Your task to perform on an android device: turn on showing notifications on the lock screen Image 0: 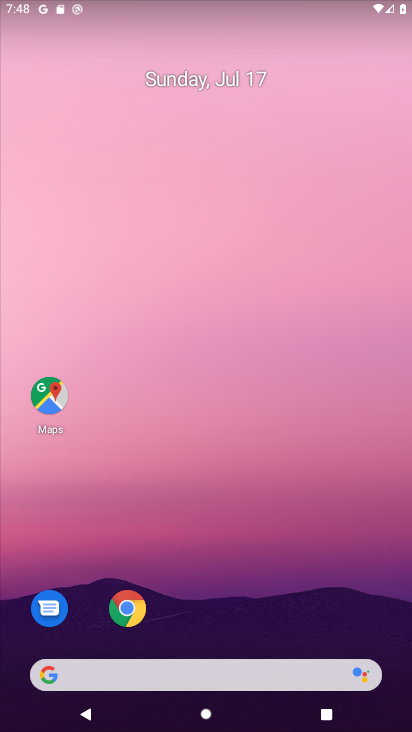
Step 0: drag from (183, 674) to (128, 237)
Your task to perform on an android device: turn on showing notifications on the lock screen Image 1: 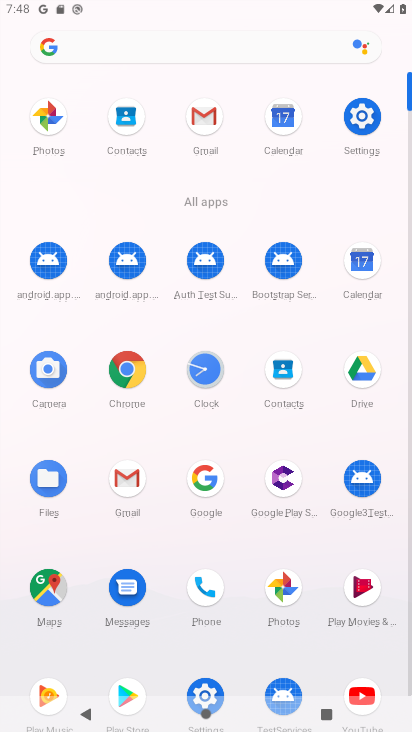
Step 1: click (358, 116)
Your task to perform on an android device: turn on showing notifications on the lock screen Image 2: 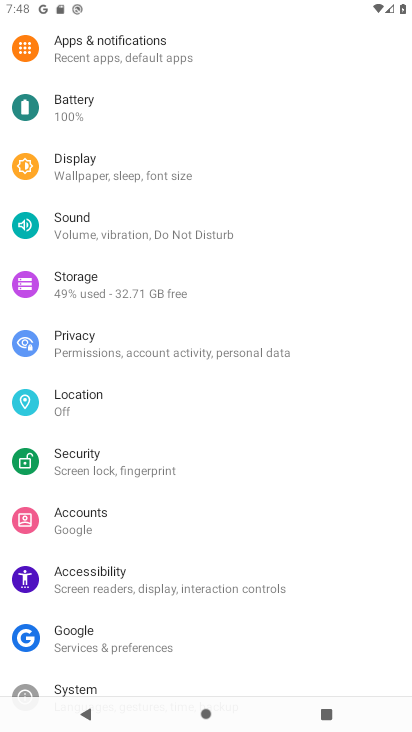
Step 2: click (91, 353)
Your task to perform on an android device: turn on showing notifications on the lock screen Image 3: 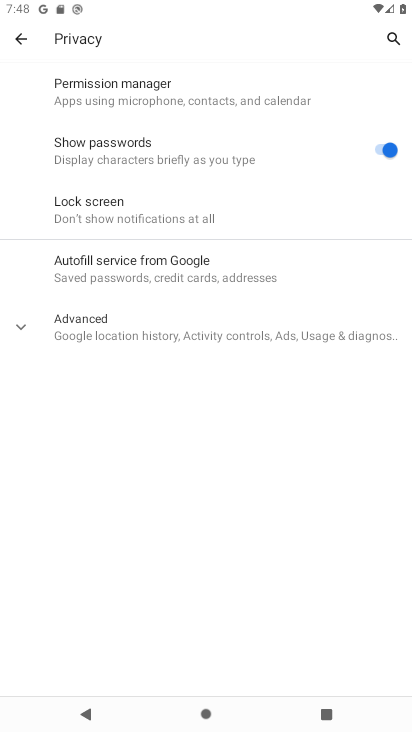
Step 3: click (51, 219)
Your task to perform on an android device: turn on showing notifications on the lock screen Image 4: 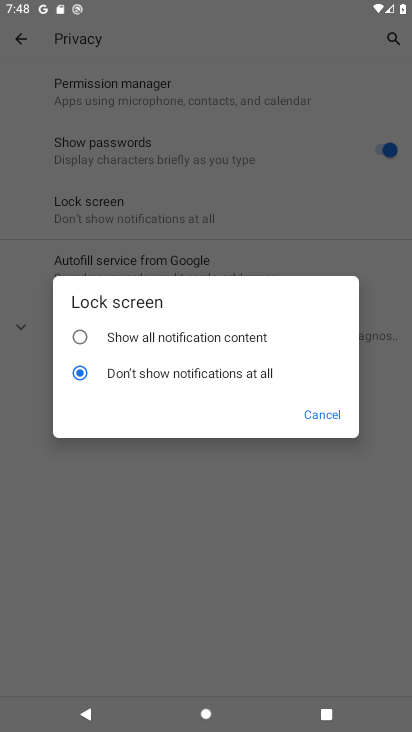
Step 4: click (143, 344)
Your task to perform on an android device: turn on showing notifications on the lock screen Image 5: 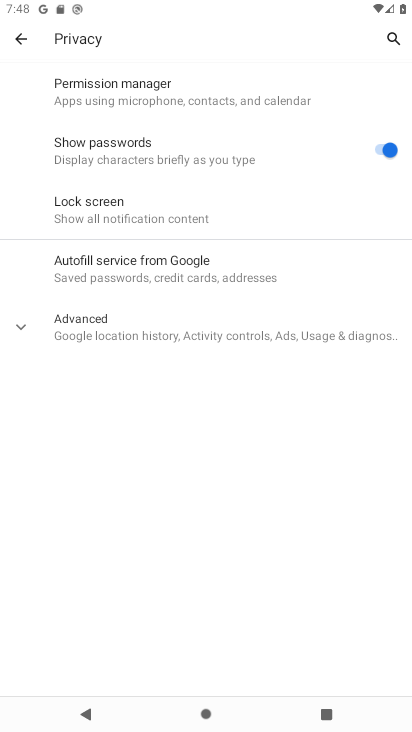
Step 5: task complete